Your task to perform on an android device: Go to display settings Image 0: 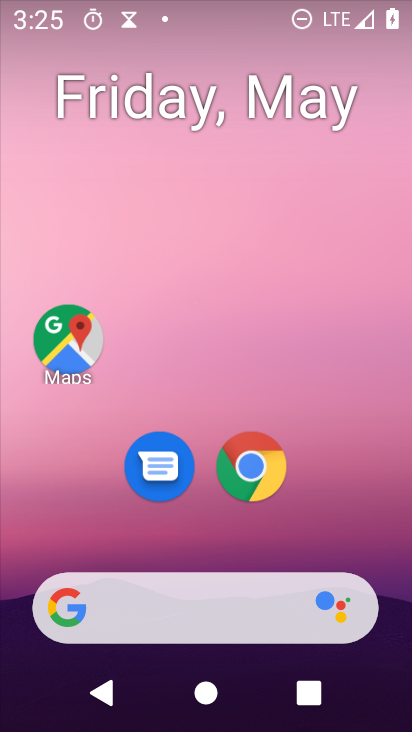
Step 0: drag from (335, 499) to (317, 15)
Your task to perform on an android device: Go to display settings Image 1: 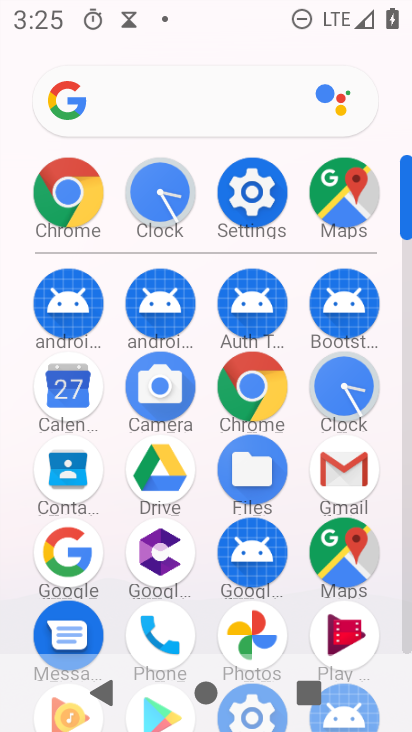
Step 1: click (269, 175)
Your task to perform on an android device: Go to display settings Image 2: 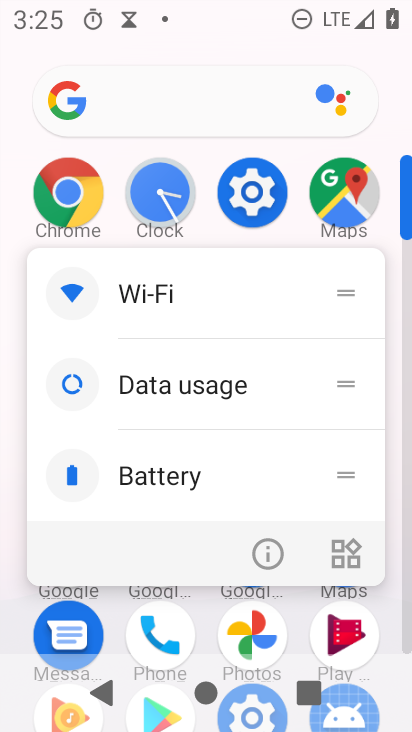
Step 2: click (268, 175)
Your task to perform on an android device: Go to display settings Image 3: 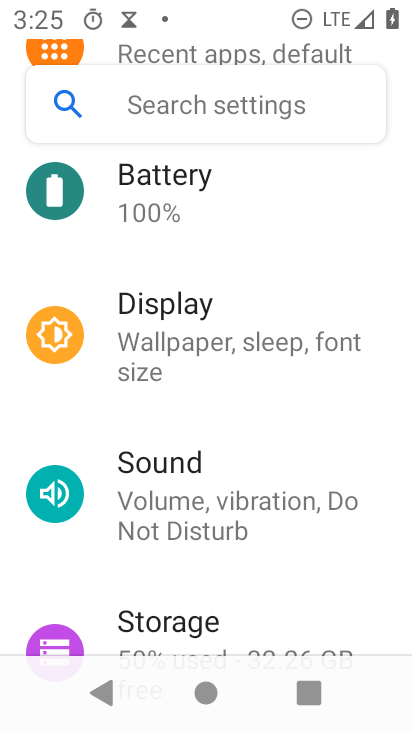
Step 3: click (198, 347)
Your task to perform on an android device: Go to display settings Image 4: 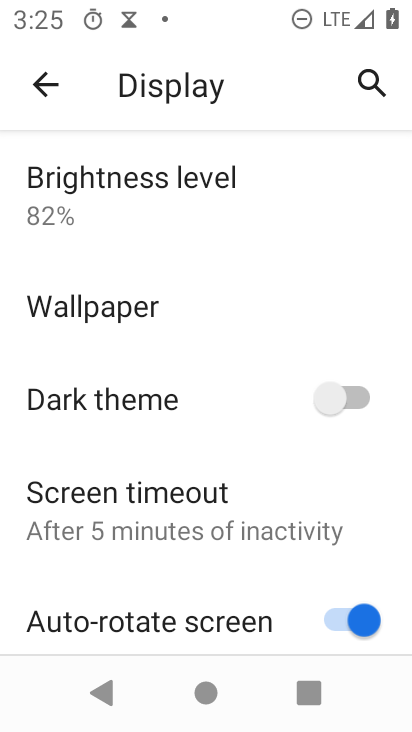
Step 4: task complete